Your task to perform on an android device: Go to Wikipedia Image 0: 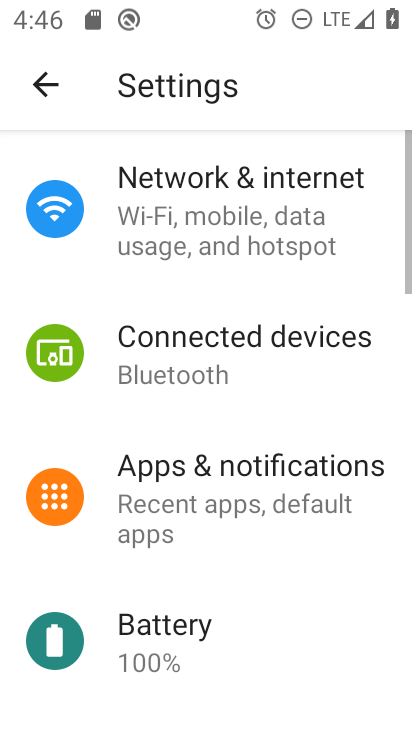
Step 0: press home button
Your task to perform on an android device: Go to Wikipedia Image 1: 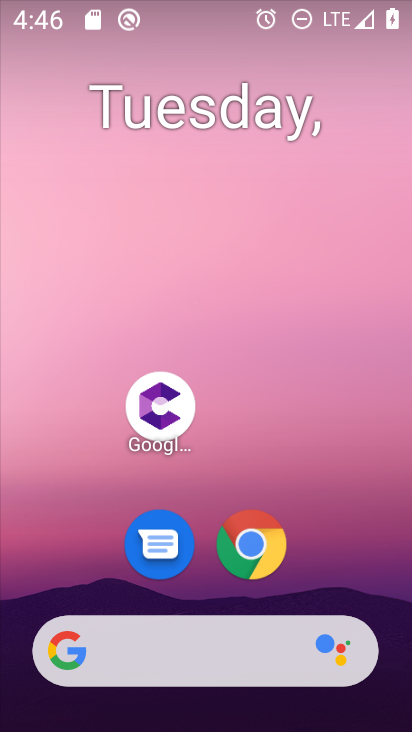
Step 1: drag from (367, 563) to (361, 190)
Your task to perform on an android device: Go to Wikipedia Image 2: 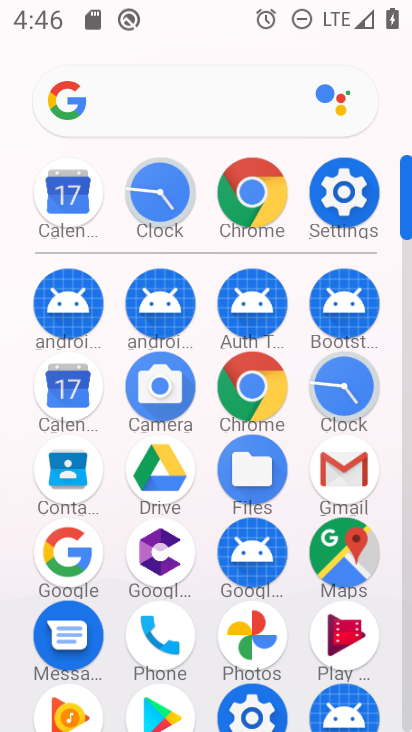
Step 2: click (268, 407)
Your task to perform on an android device: Go to Wikipedia Image 3: 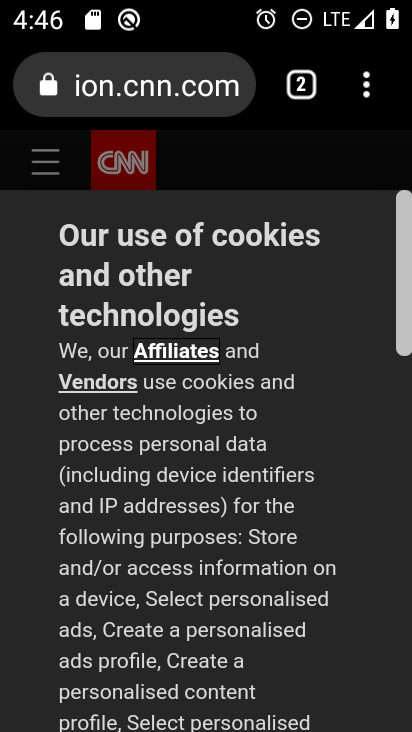
Step 3: press back button
Your task to perform on an android device: Go to Wikipedia Image 4: 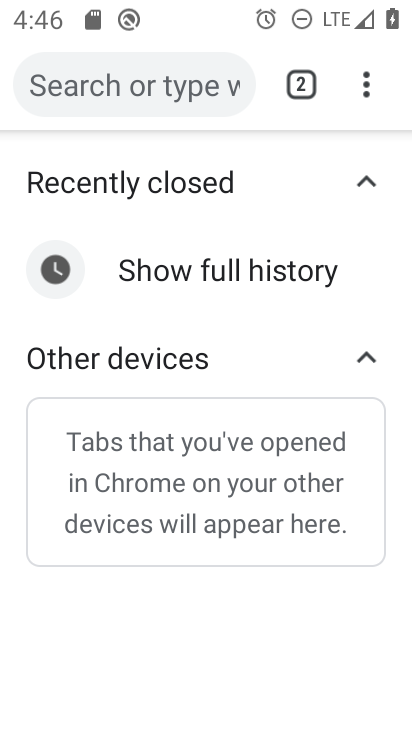
Step 4: press back button
Your task to perform on an android device: Go to Wikipedia Image 5: 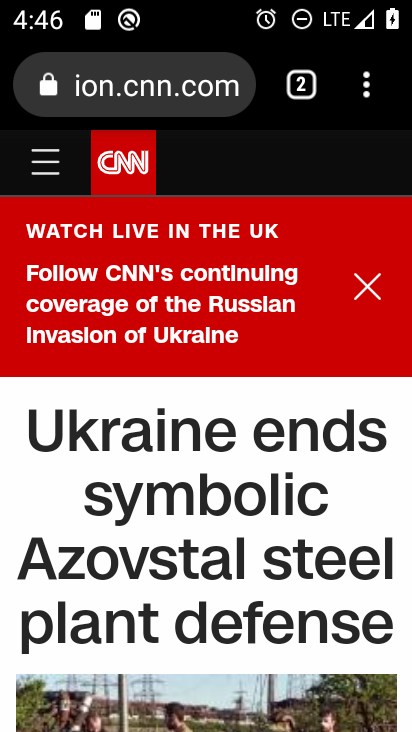
Step 5: click (161, 81)
Your task to perform on an android device: Go to Wikipedia Image 6: 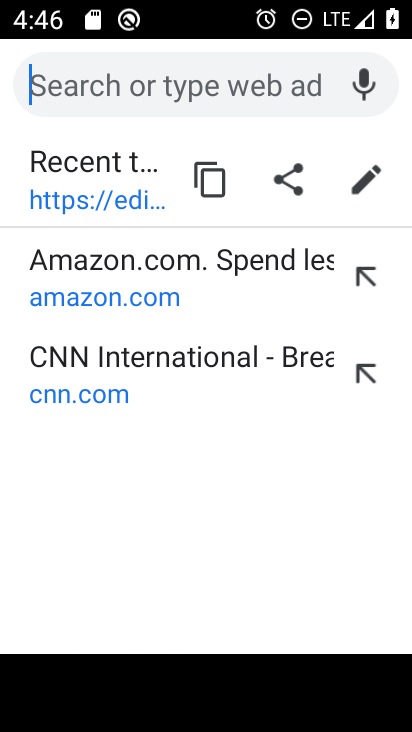
Step 6: type "wikipedia"
Your task to perform on an android device: Go to Wikipedia Image 7: 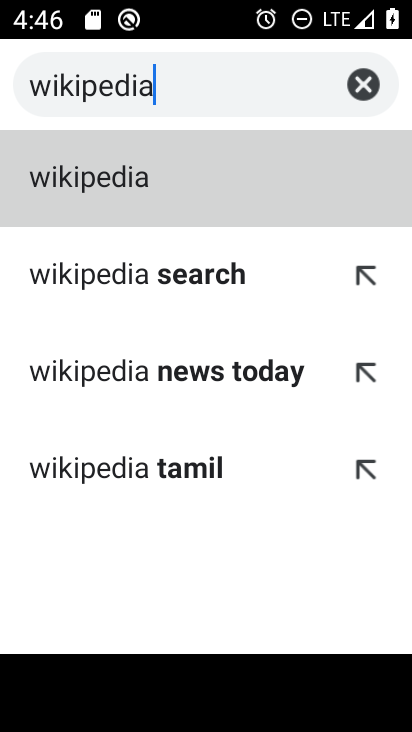
Step 7: click (97, 186)
Your task to perform on an android device: Go to Wikipedia Image 8: 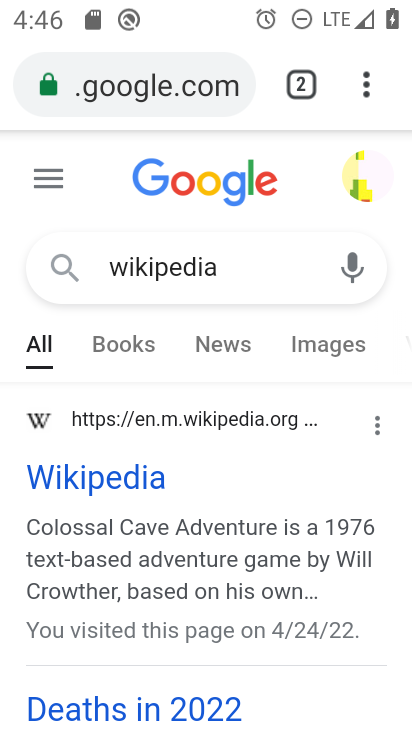
Step 8: task complete